Your task to perform on an android device: Is it going to rain this weekend? Image 0: 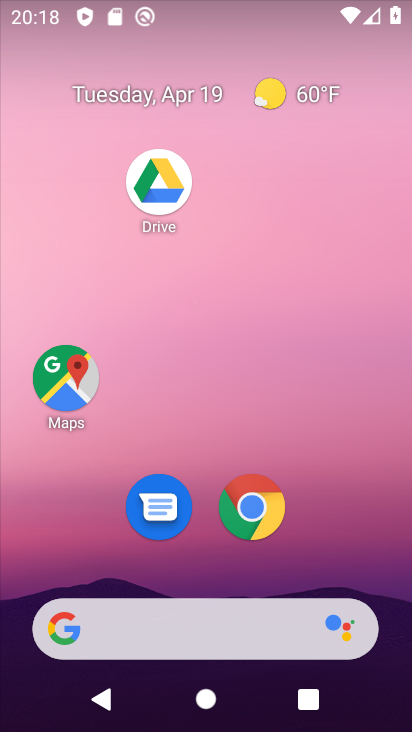
Step 0: click (321, 98)
Your task to perform on an android device: Is it going to rain this weekend? Image 1: 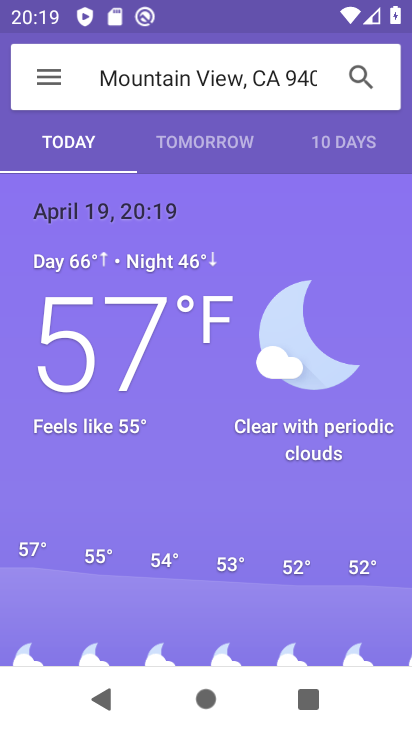
Step 1: click (353, 138)
Your task to perform on an android device: Is it going to rain this weekend? Image 2: 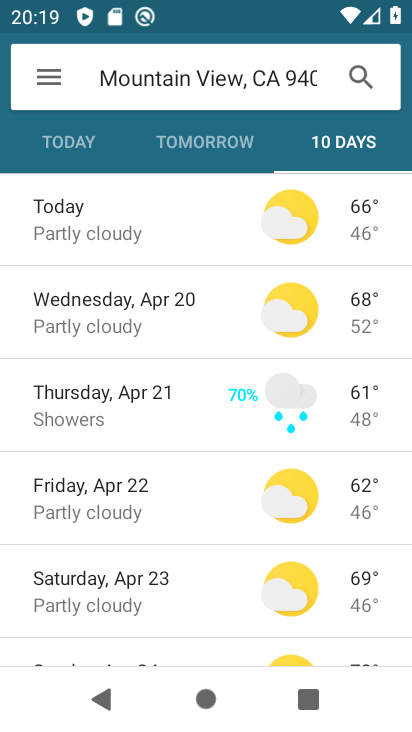
Step 2: click (154, 577)
Your task to perform on an android device: Is it going to rain this weekend? Image 3: 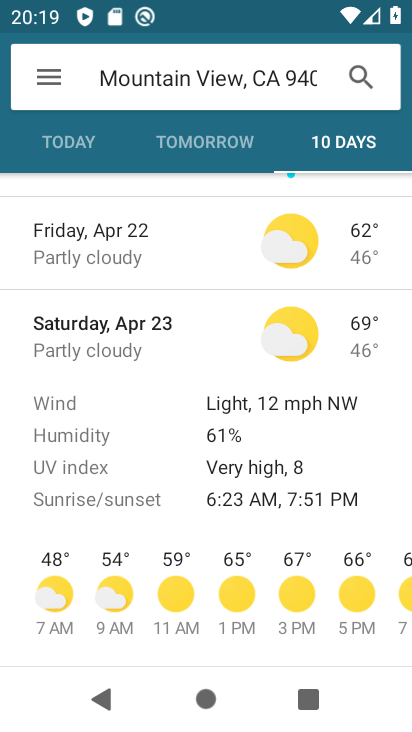
Step 3: task complete